Your task to perform on an android device: turn on improve location accuracy Image 0: 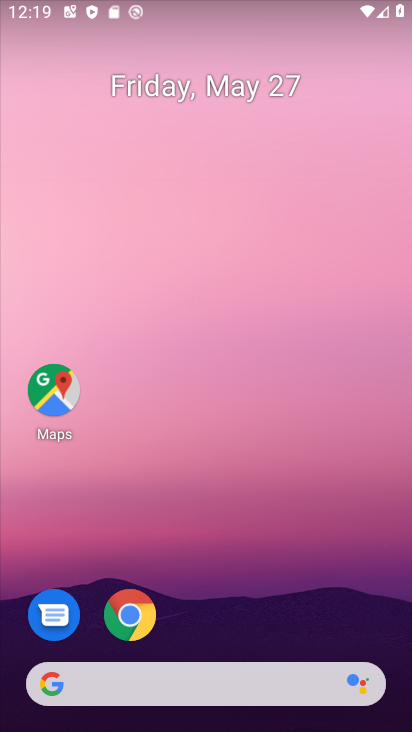
Step 0: drag from (218, 658) to (210, 61)
Your task to perform on an android device: turn on improve location accuracy Image 1: 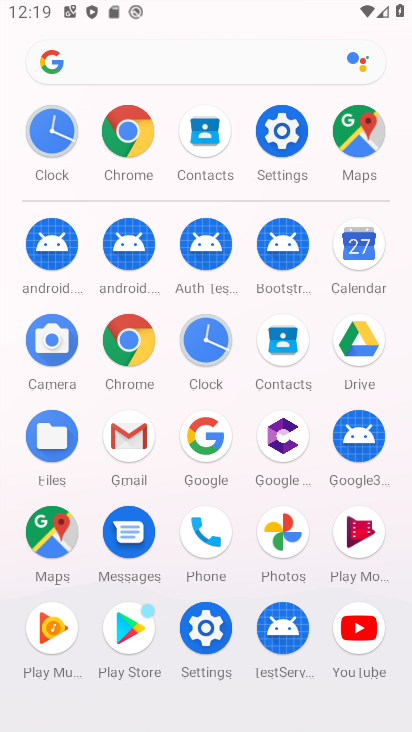
Step 1: click (282, 143)
Your task to perform on an android device: turn on improve location accuracy Image 2: 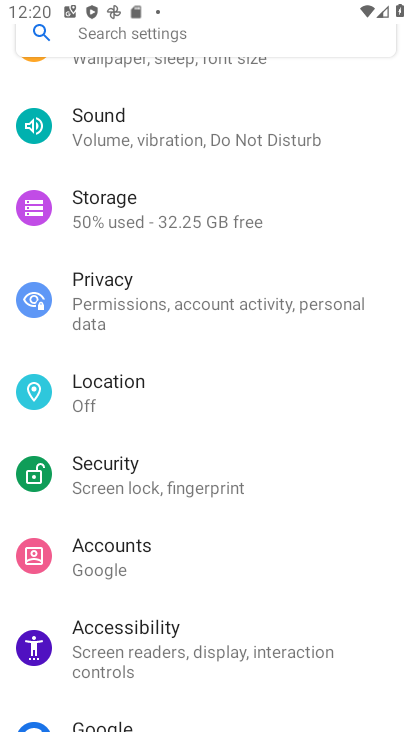
Step 2: drag from (153, 116) to (169, 58)
Your task to perform on an android device: turn on improve location accuracy Image 3: 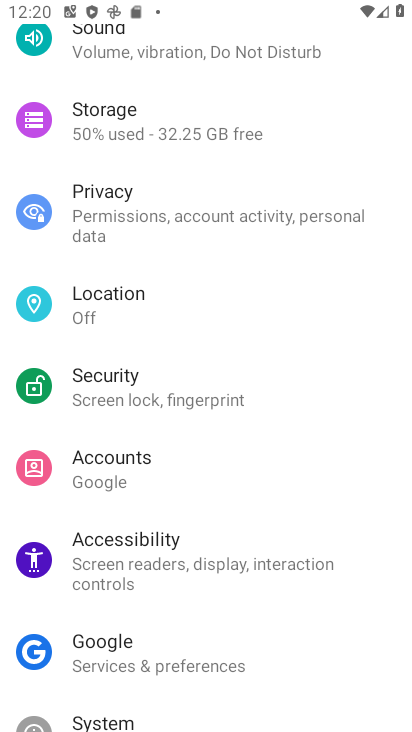
Step 3: click (136, 310)
Your task to perform on an android device: turn on improve location accuracy Image 4: 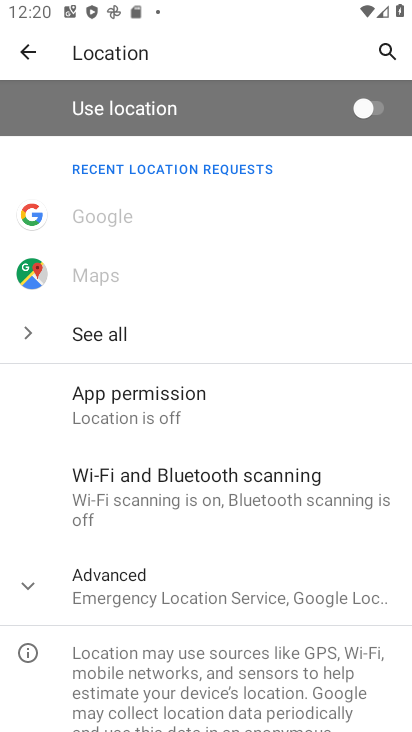
Step 4: click (209, 589)
Your task to perform on an android device: turn on improve location accuracy Image 5: 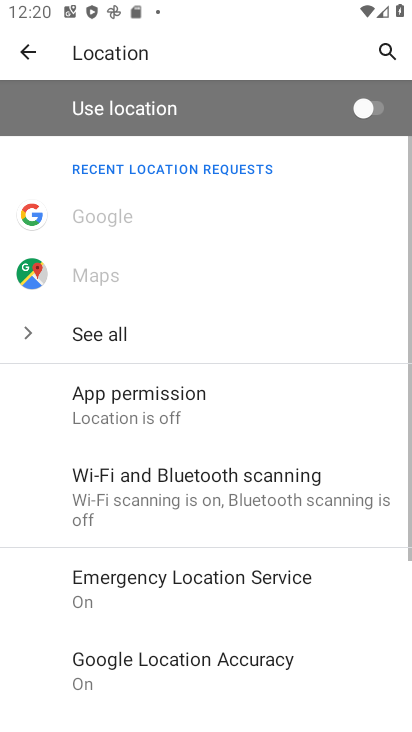
Step 5: drag from (181, 641) to (206, 377)
Your task to perform on an android device: turn on improve location accuracy Image 6: 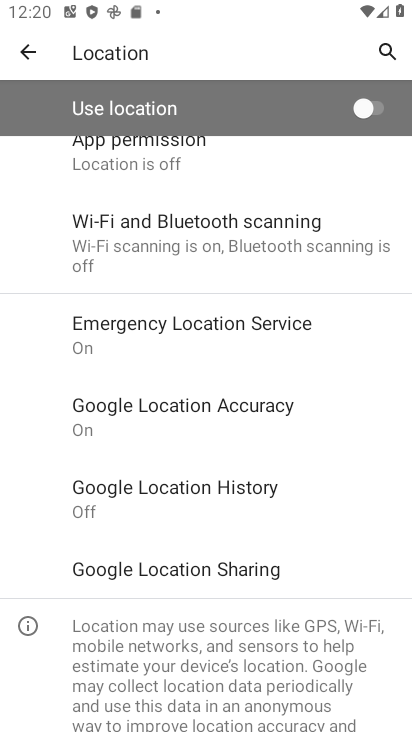
Step 6: click (178, 415)
Your task to perform on an android device: turn on improve location accuracy Image 7: 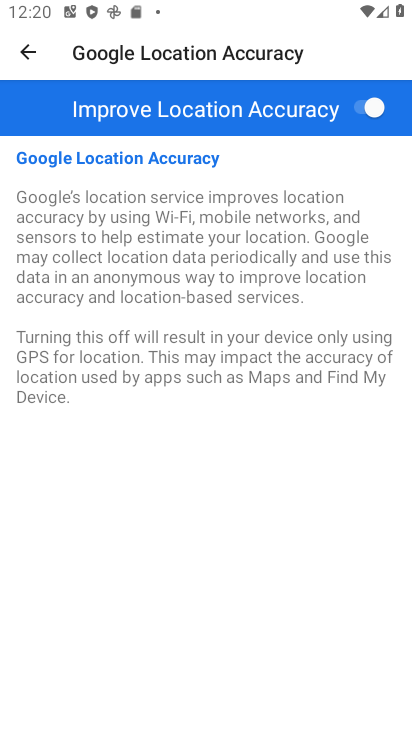
Step 7: task complete